Your task to perform on an android device: change the clock display to digital Image 0: 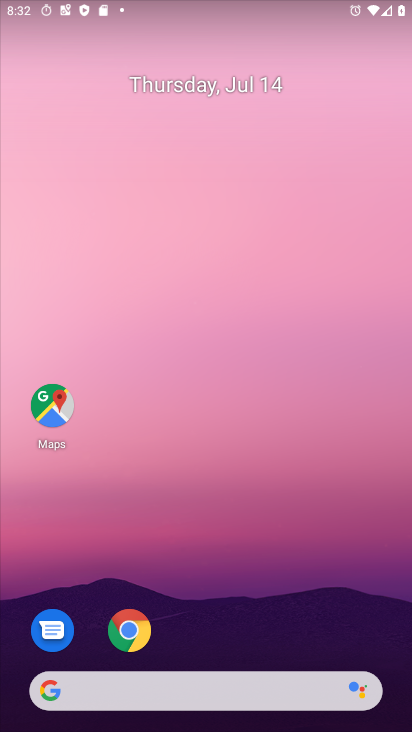
Step 0: drag from (215, 723) to (214, 215)
Your task to perform on an android device: change the clock display to digital Image 1: 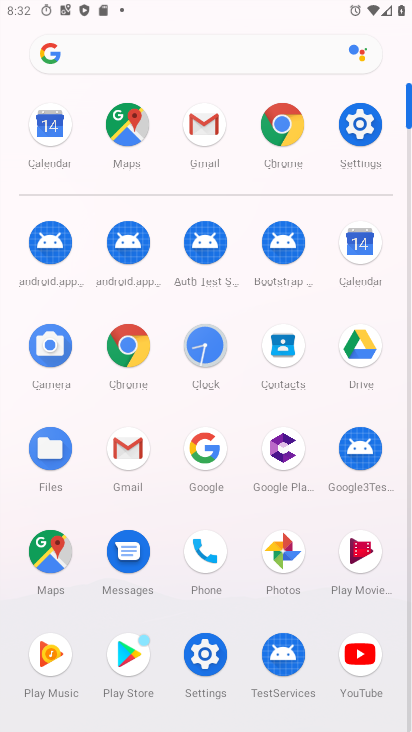
Step 1: click (212, 353)
Your task to perform on an android device: change the clock display to digital Image 2: 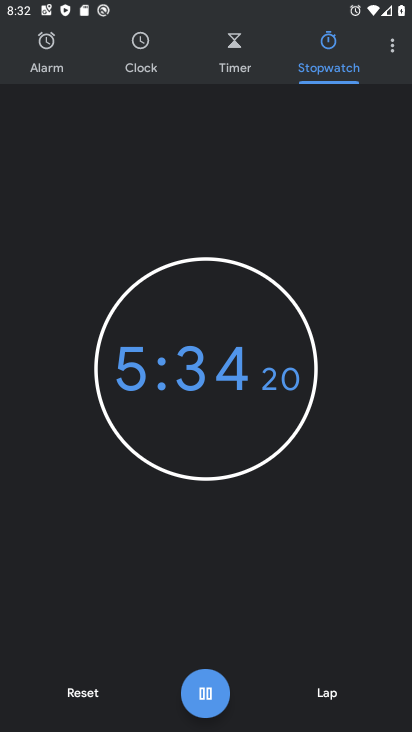
Step 2: click (391, 49)
Your task to perform on an android device: change the clock display to digital Image 3: 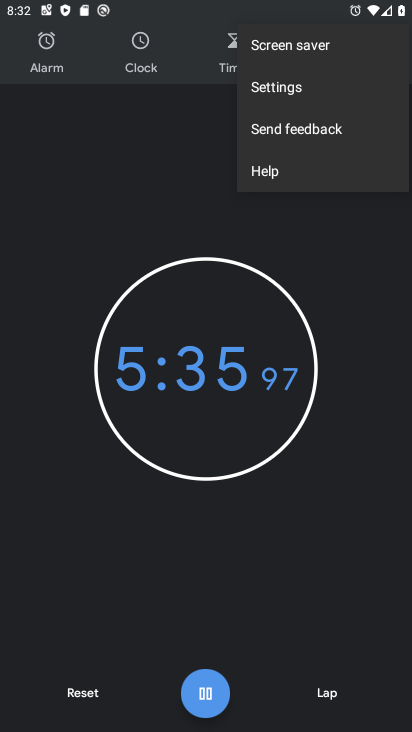
Step 3: click (287, 84)
Your task to perform on an android device: change the clock display to digital Image 4: 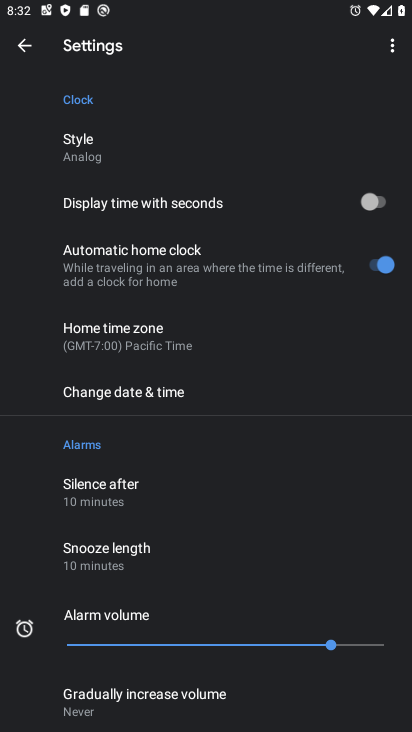
Step 4: click (85, 156)
Your task to perform on an android device: change the clock display to digital Image 5: 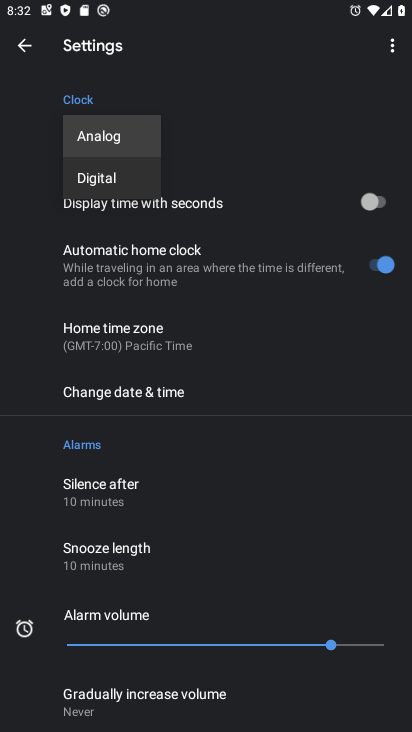
Step 5: click (96, 182)
Your task to perform on an android device: change the clock display to digital Image 6: 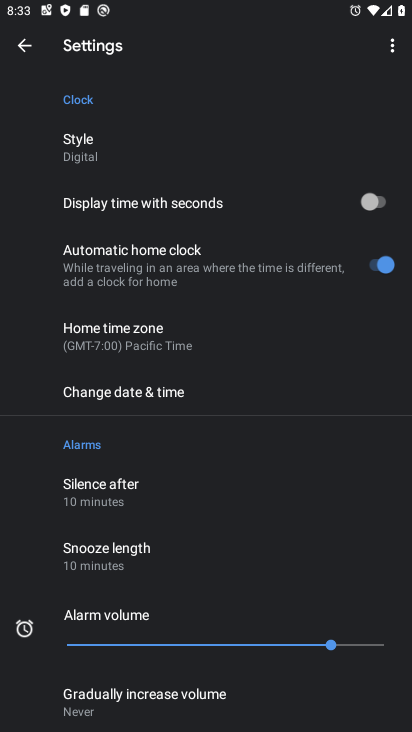
Step 6: task complete